Your task to perform on an android device: add a contact in the contacts app Image 0: 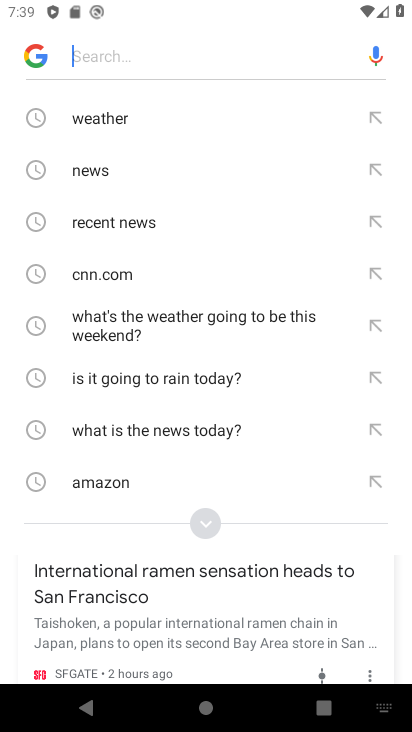
Step 0: drag from (214, 493) to (249, 189)
Your task to perform on an android device: add a contact in the contacts app Image 1: 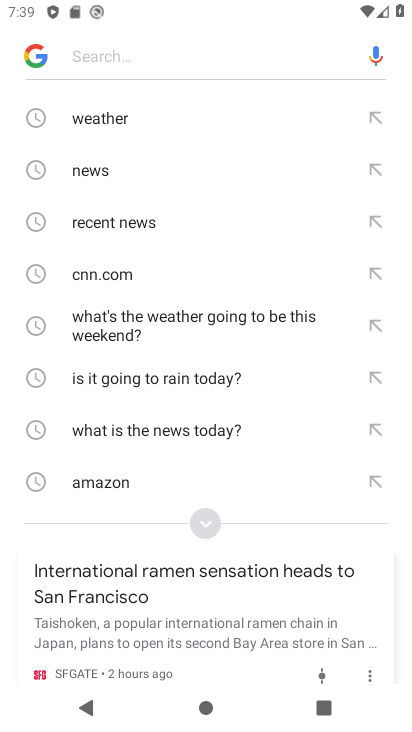
Step 1: drag from (228, 668) to (318, 303)
Your task to perform on an android device: add a contact in the contacts app Image 2: 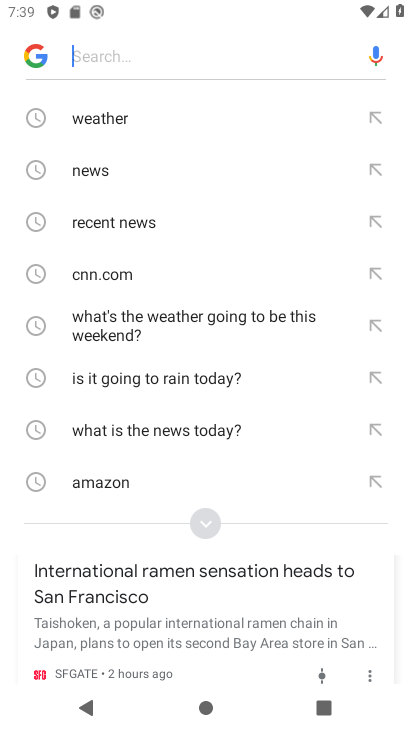
Step 2: press home button
Your task to perform on an android device: add a contact in the contacts app Image 3: 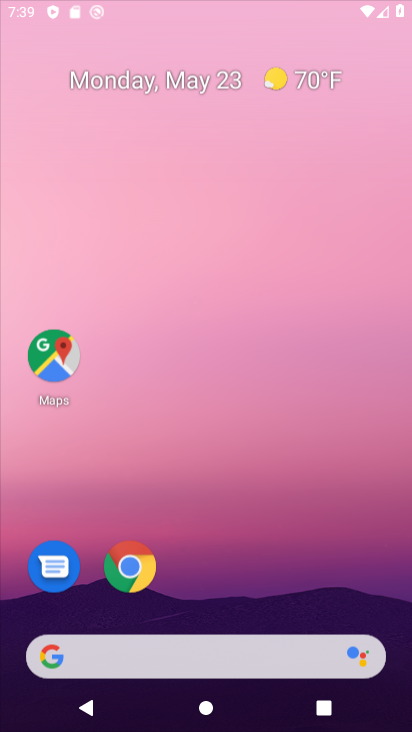
Step 3: drag from (190, 614) to (266, 123)
Your task to perform on an android device: add a contact in the contacts app Image 4: 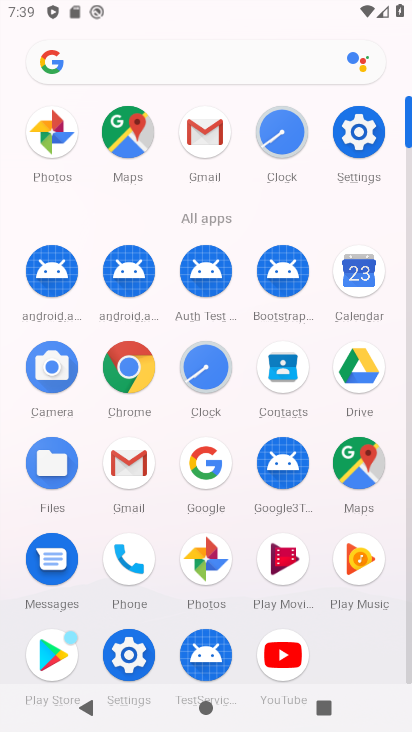
Step 4: click (293, 351)
Your task to perform on an android device: add a contact in the contacts app Image 5: 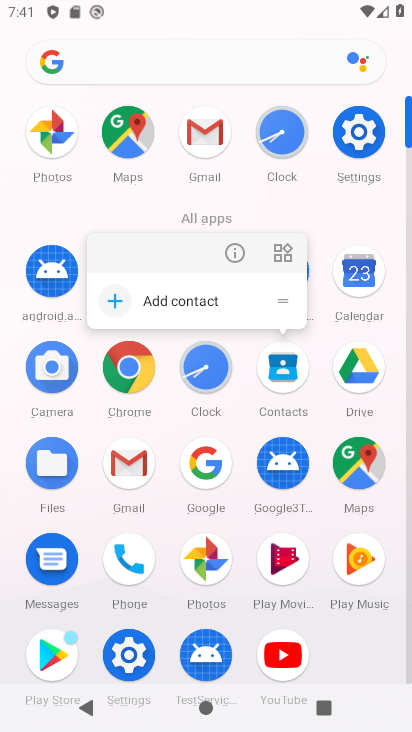
Step 5: click (225, 250)
Your task to perform on an android device: add a contact in the contacts app Image 6: 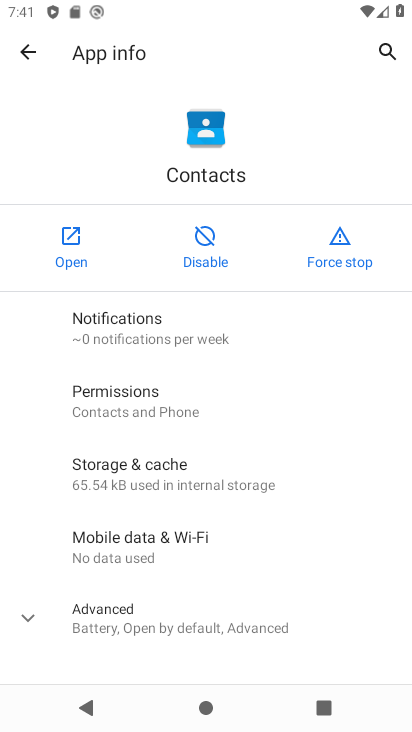
Step 6: click (71, 224)
Your task to perform on an android device: add a contact in the contacts app Image 7: 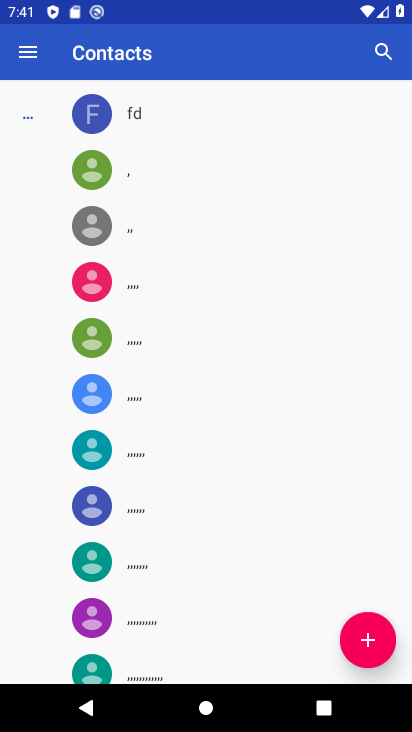
Step 7: click (362, 626)
Your task to perform on an android device: add a contact in the contacts app Image 8: 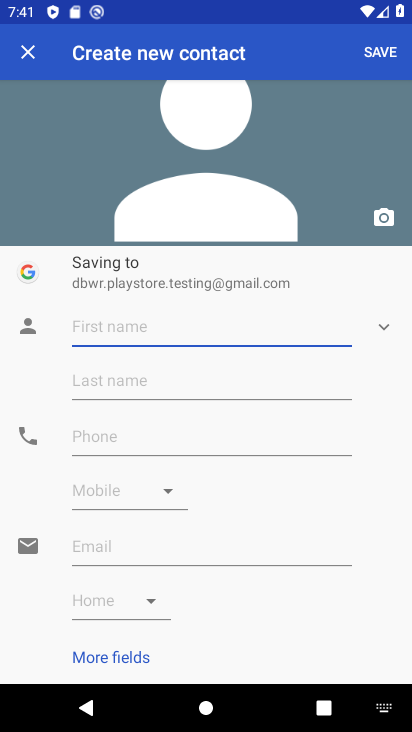
Step 8: click (103, 331)
Your task to perform on an android device: add a contact in the contacts app Image 9: 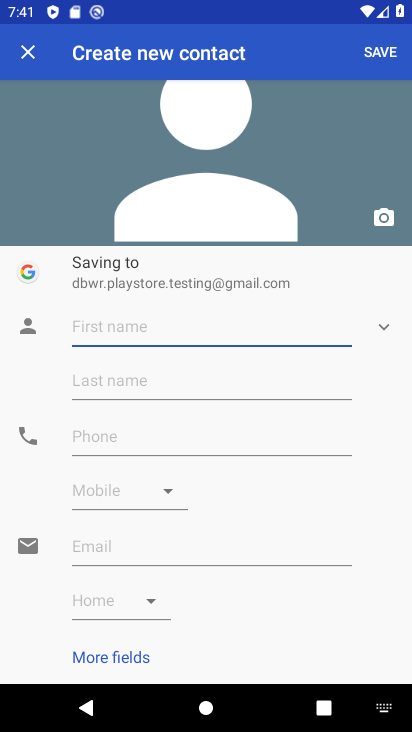
Step 9: type "majska"
Your task to perform on an android device: add a contact in the contacts app Image 10: 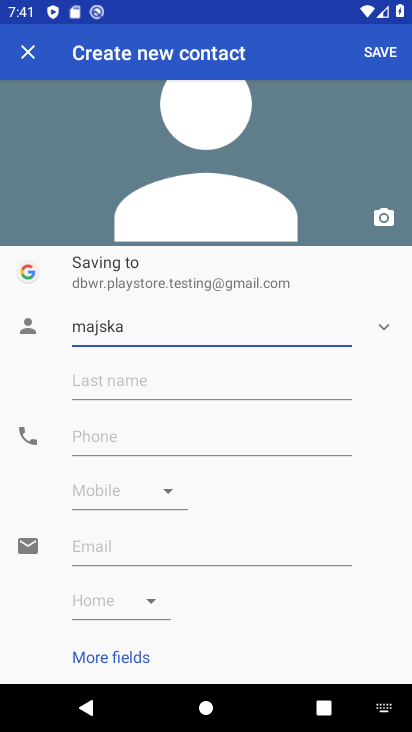
Step 10: click (380, 58)
Your task to perform on an android device: add a contact in the contacts app Image 11: 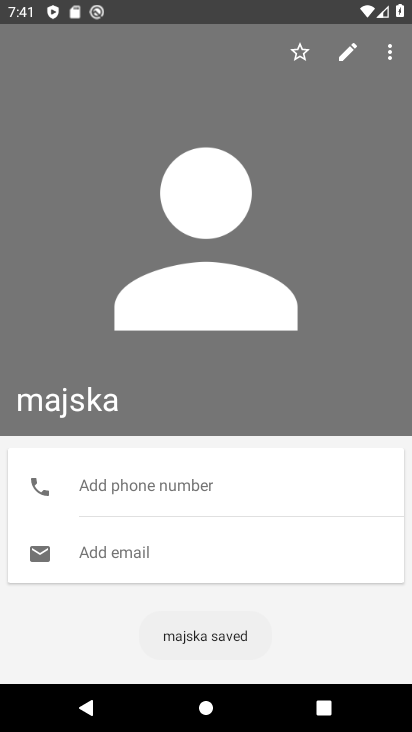
Step 11: task complete